Your task to perform on an android device: Open Yahoo.com Image 0: 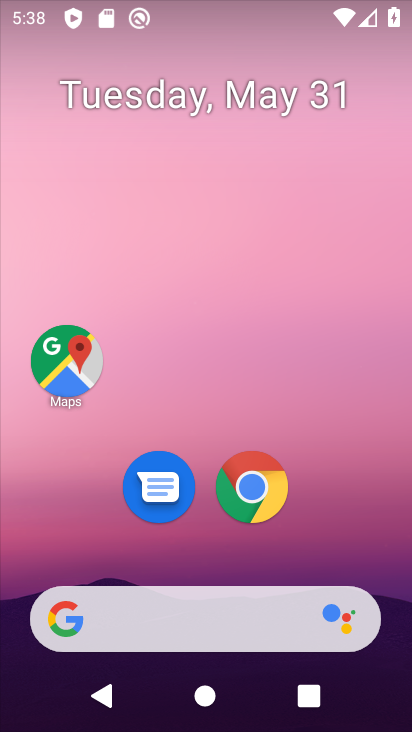
Step 0: click (248, 487)
Your task to perform on an android device: Open Yahoo.com Image 1: 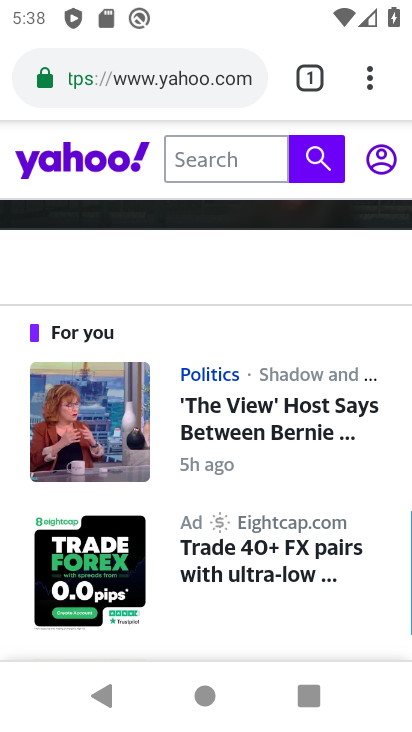
Step 1: task complete